Your task to perform on an android device: move a message to another label in the gmail app Image 0: 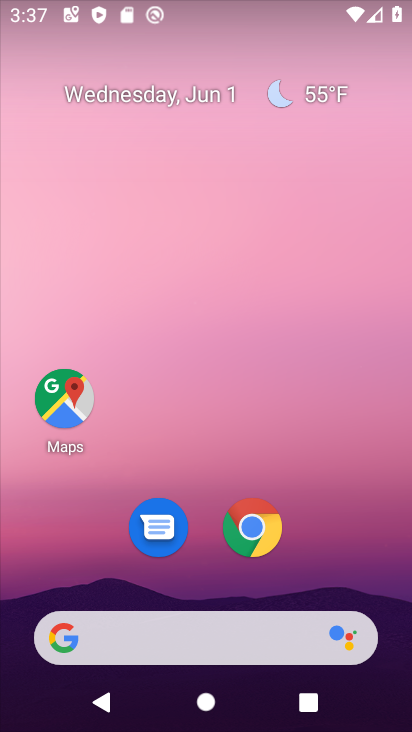
Step 0: drag from (353, 561) to (352, 45)
Your task to perform on an android device: move a message to another label in the gmail app Image 1: 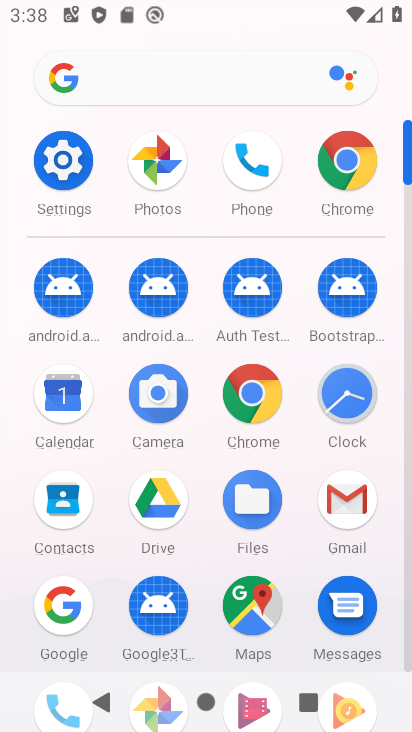
Step 1: click (336, 497)
Your task to perform on an android device: move a message to another label in the gmail app Image 2: 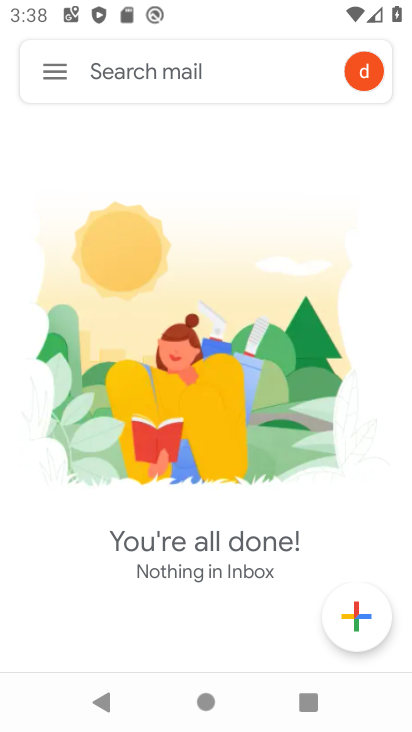
Step 2: click (44, 57)
Your task to perform on an android device: move a message to another label in the gmail app Image 3: 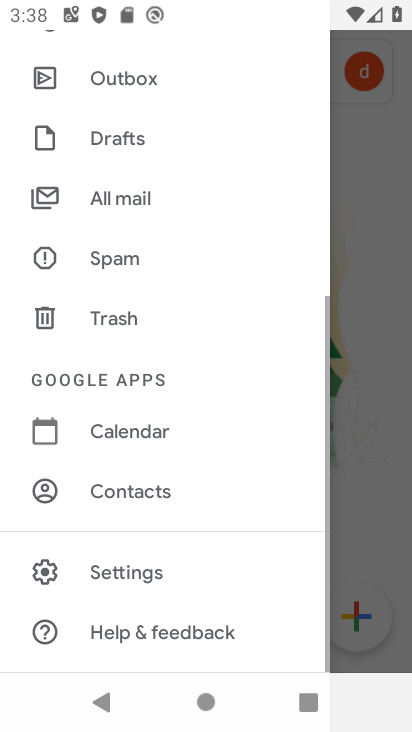
Step 3: task complete